Your task to perform on an android device: open sync settings in chrome Image 0: 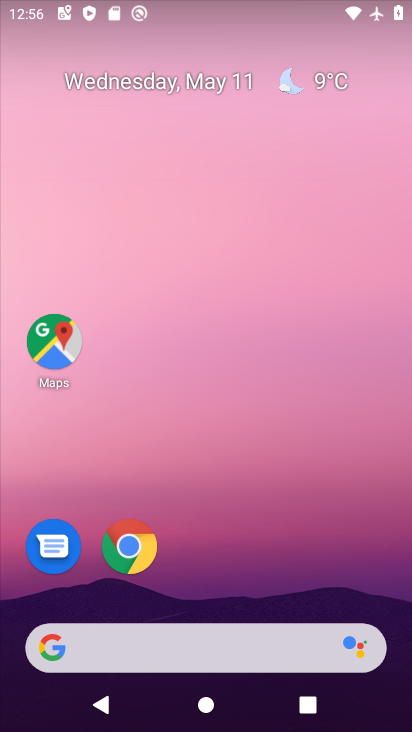
Step 0: drag from (290, 656) to (200, 160)
Your task to perform on an android device: open sync settings in chrome Image 1: 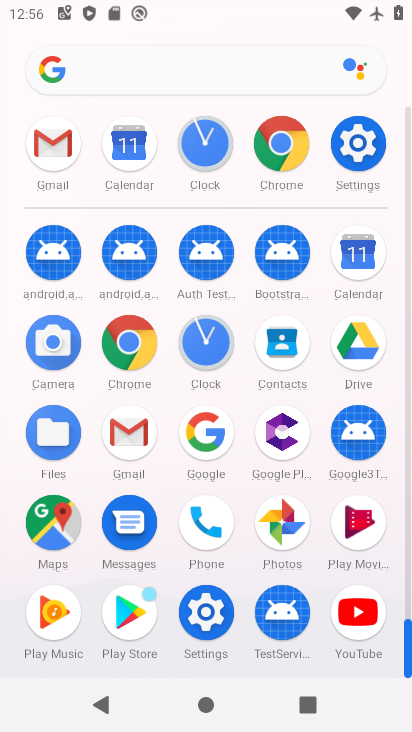
Step 1: click (145, 338)
Your task to perform on an android device: open sync settings in chrome Image 2: 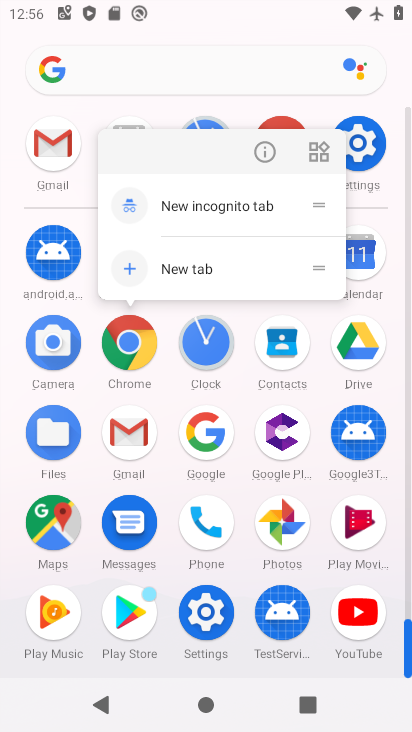
Step 2: click (124, 363)
Your task to perform on an android device: open sync settings in chrome Image 3: 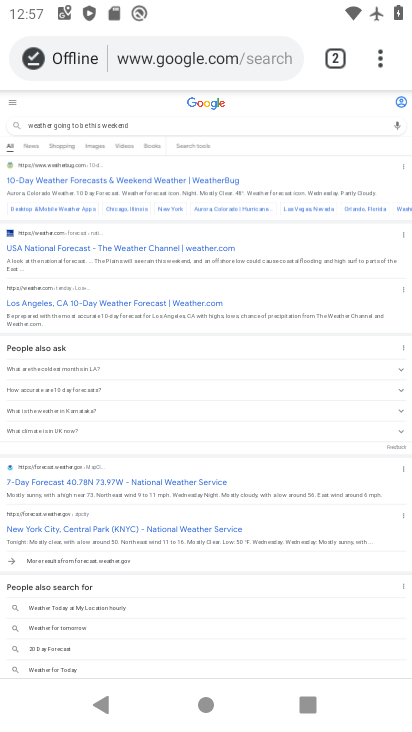
Step 3: click (373, 56)
Your task to perform on an android device: open sync settings in chrome Image 4: 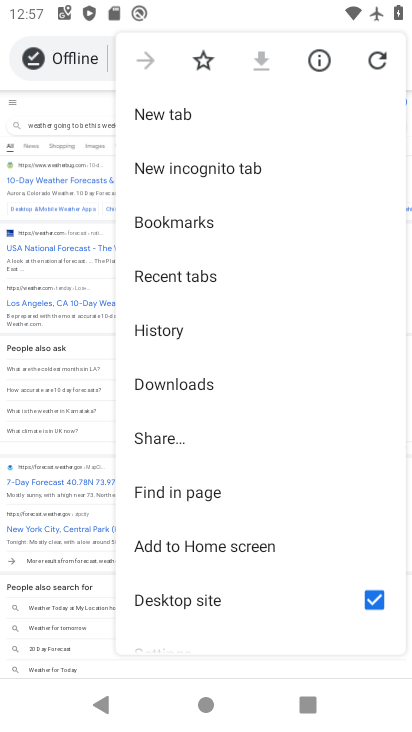
Step 4: drag from (201, 608) to (215, 275)
Your task to perform on an android device: open sync settings in chrome Image 5: 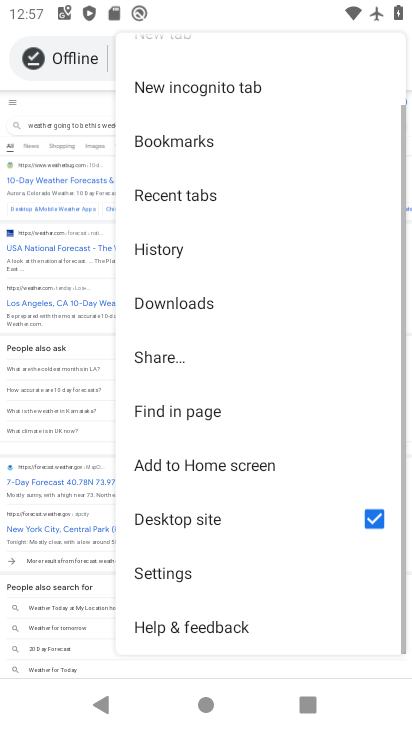
Step 5: click (196, 589)
Your task to perform on an android device: open sync settings in chrome Image 6: 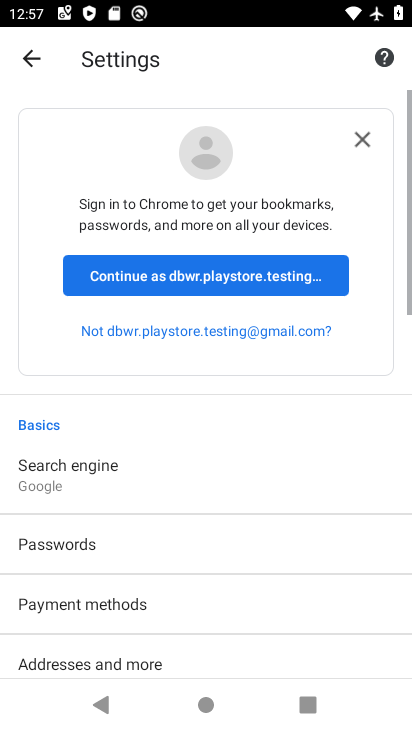
Step 6: drag from (217, 644) to (176, 120)
Your task to perform on an android device: open sync settings in chrome Image 7: 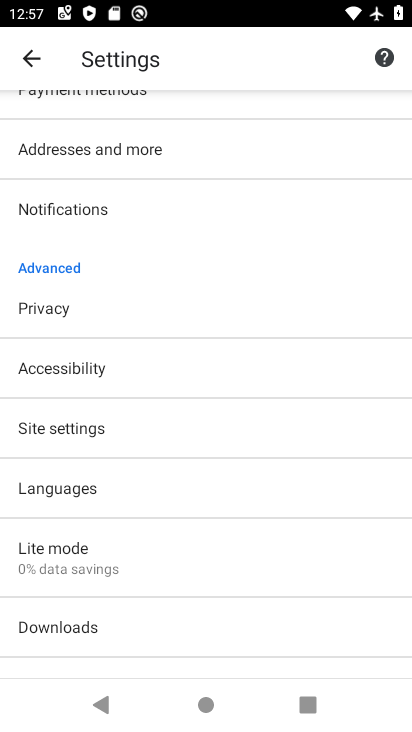
Step 7: click (148, 446)
Your task to perform on an android device: open sync settings in chrome Image 8: 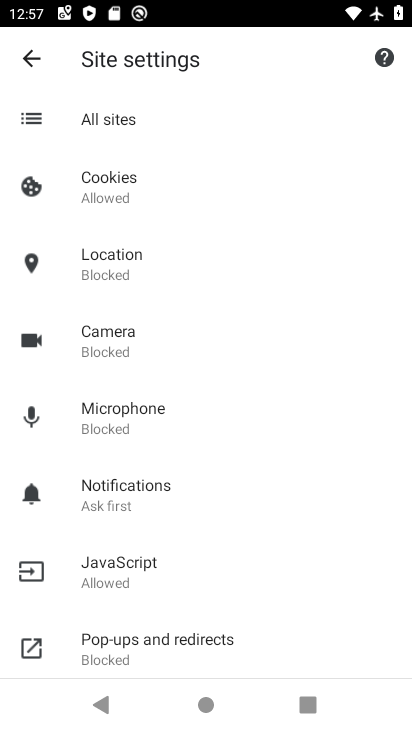
Step 8: drag from (207, 648) to (222, 319)
Your task to perform on an android device: open sync settings in chrome Image 9: 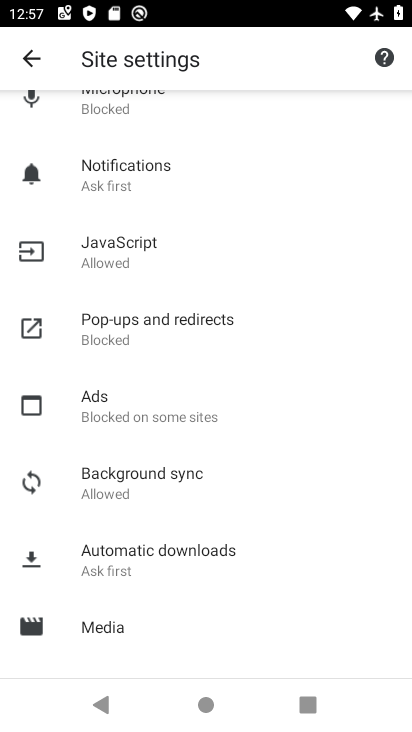
Step 9: click (179, 497)
Your task to perform on an android device: open sync settings in chrome Image 10: 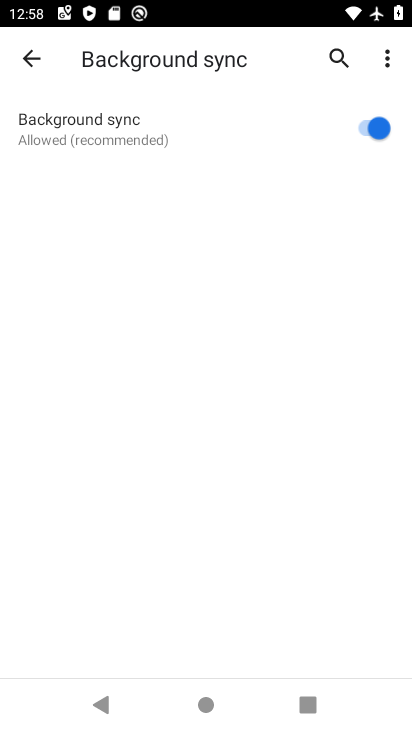
Step 10: task complete